Your task to perform on an android device: open app "Spotify: Music and Podcasts" (install if not already installed) Image 0: 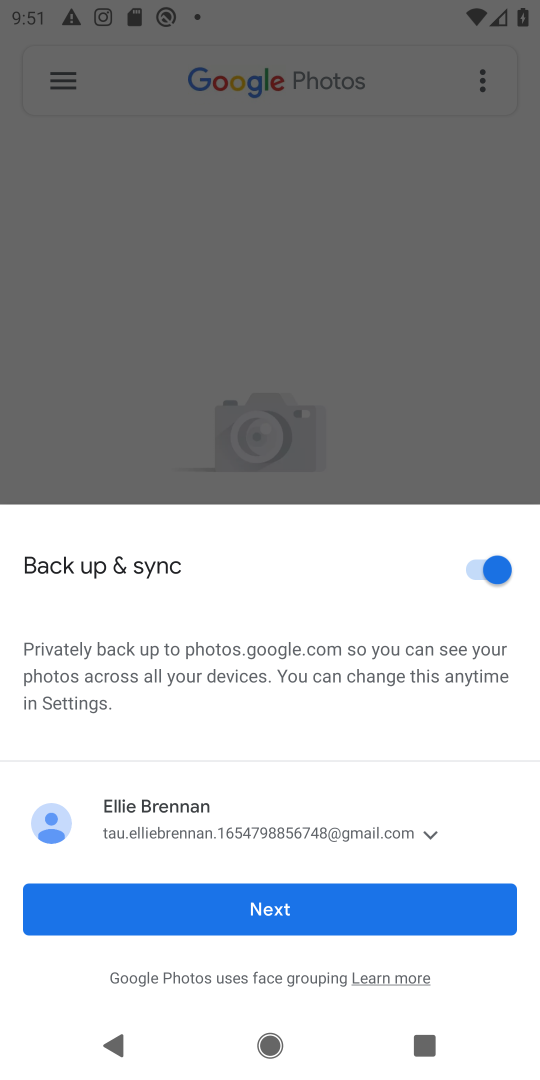
Step 0: press home button
Your task to perform on an android device: open app "Spotify: Music and Podcasts" (install if not already installed) Image 1: 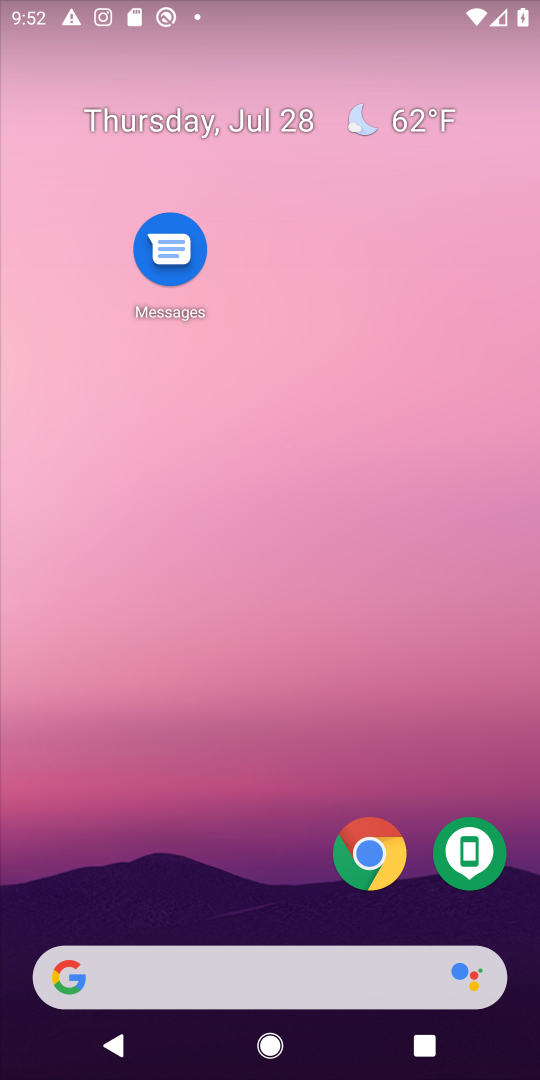
Step 1: drag from (187, 869) to (293, 279)
Your task to perform on an android device: open app "Spotify: Music and Podcasts" (install if not already installed) Image 2: 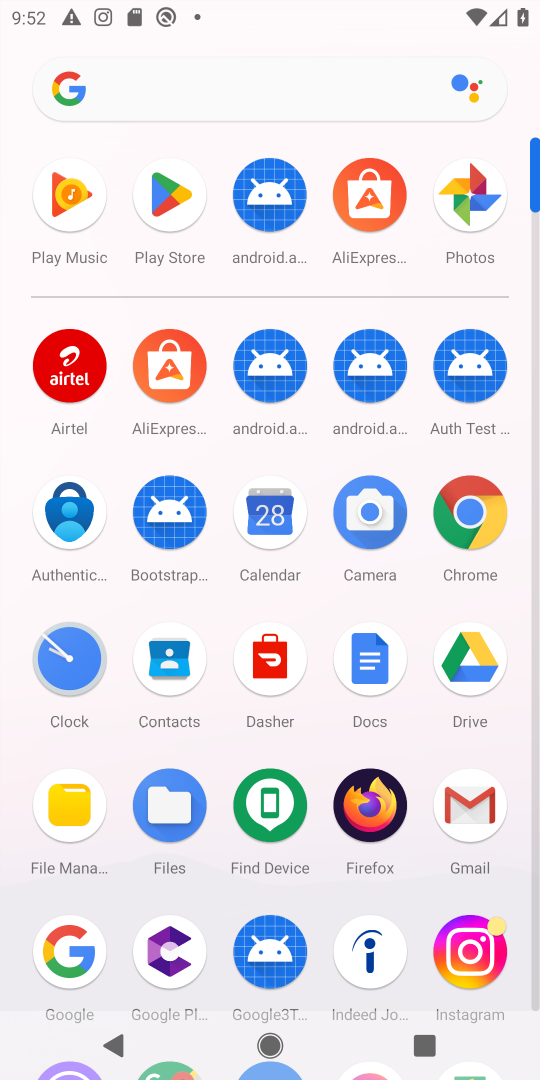
Step 2: click (156, 183)
Your task to perform on an android device: open app "Spotify: Music and Podcasts" (install if not already installed) Image 3: 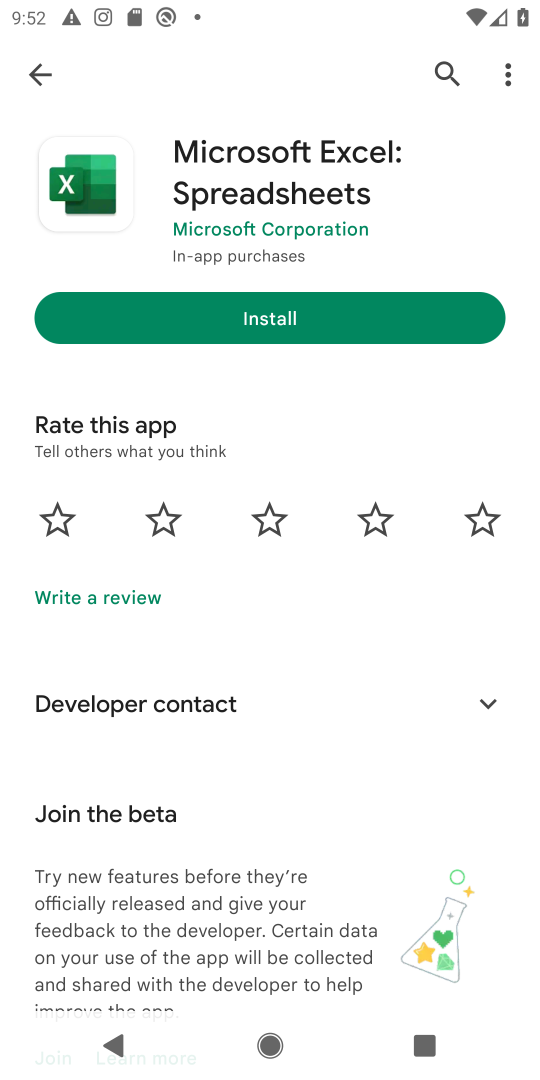
Step 3: click (43, 71)
Your task to perform on an android device: open app "Spotify: Music and Podcasts" (install if not already installed) Image 4: 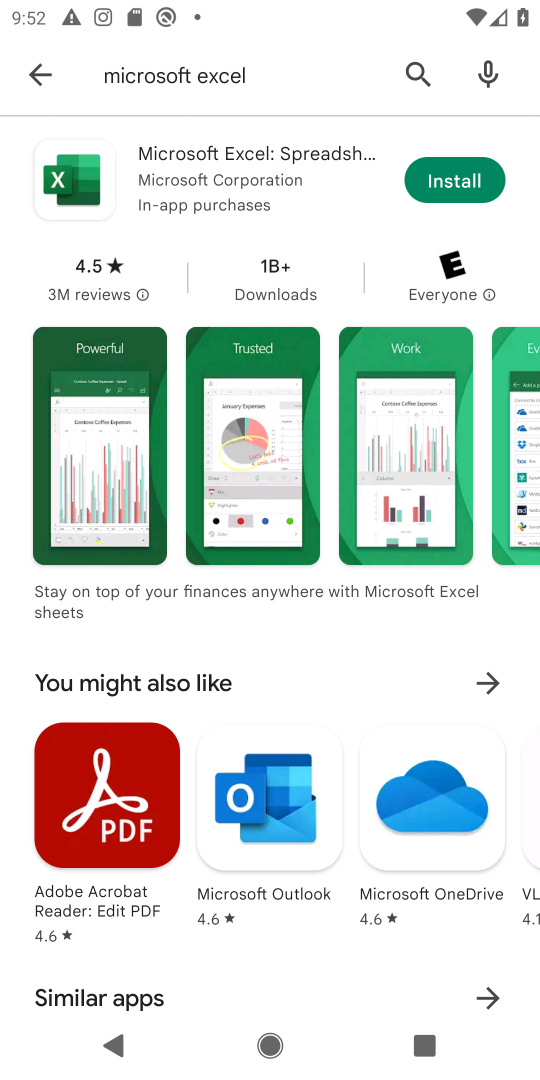
Step 4: click (43, 71)
Your task to perform on an android device: open app "Spotify: Music and Podcasts" (install if not already installed) Image 5: 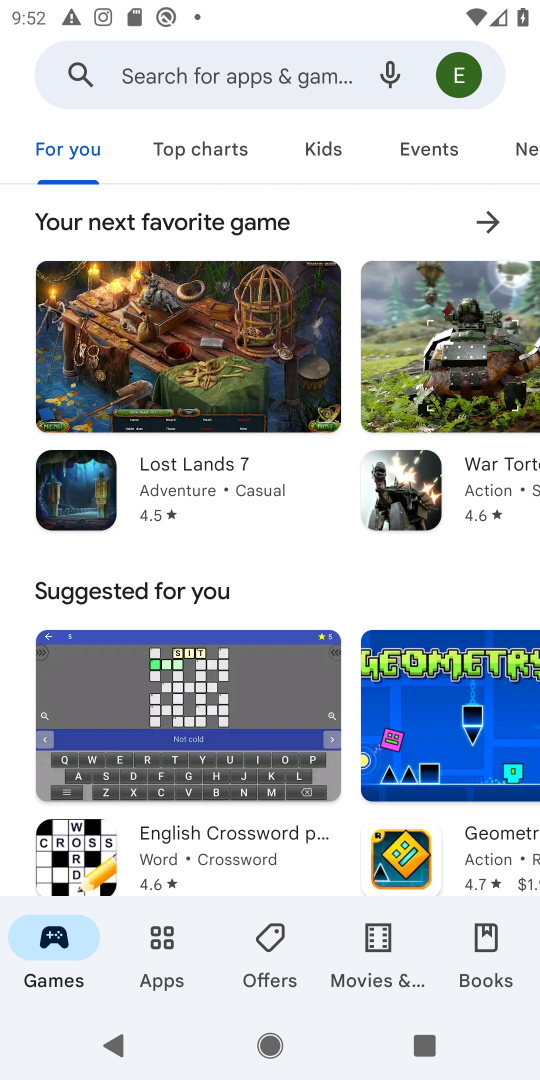
Step 5: click (123, 71)
Your task to perform on an android device: open app "Spotify: Music and Podcasts" (install if not already installed) Image 6: 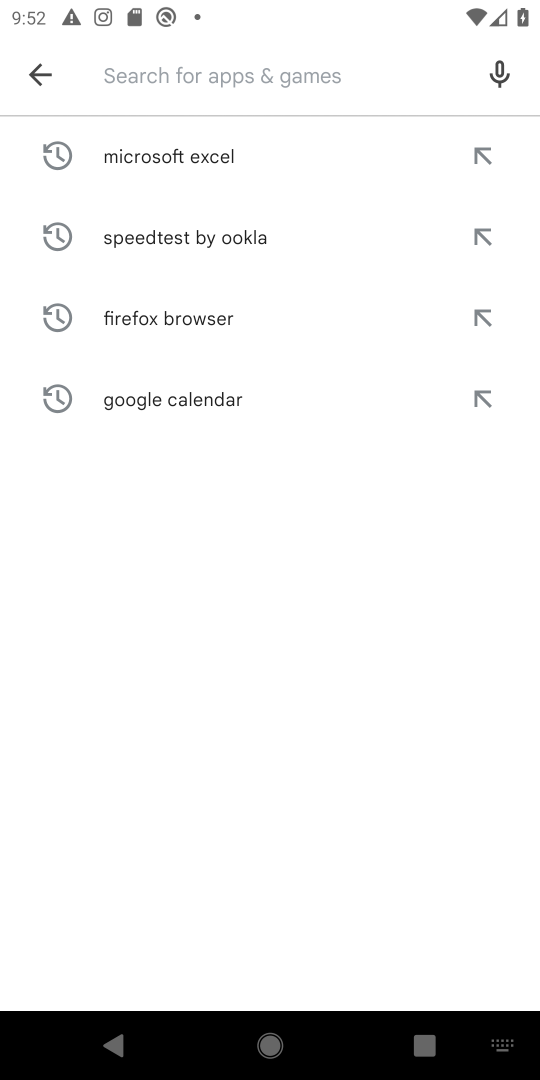
Step 6: type "Spotify"
Your task to perform on an android device: open app "Spotify: Music and Podcasts" (install if not already installed) Image 7: 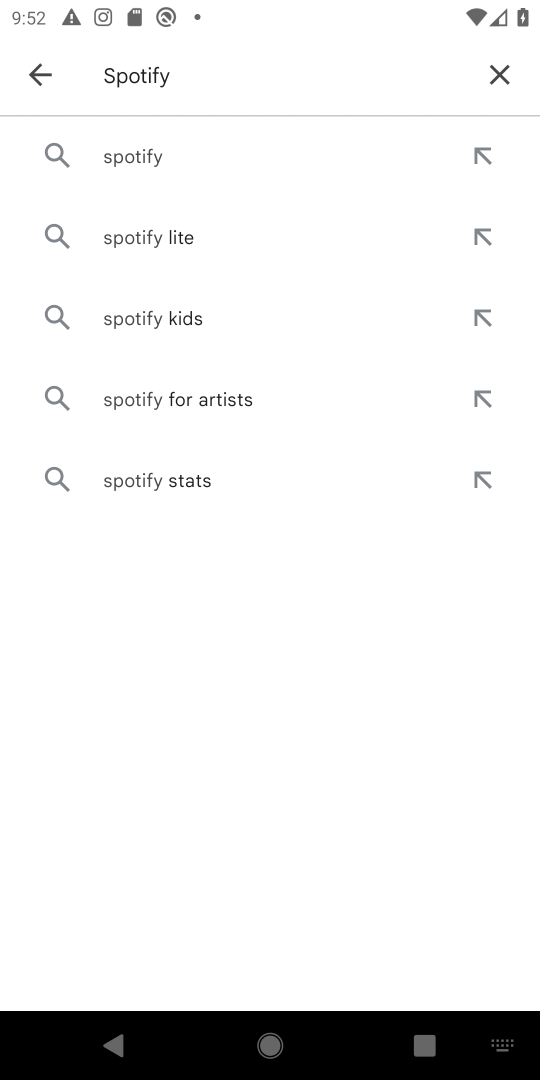
Step 7: click (125, 153)
Your task to perform on an android device: open app "Spotify: Music and Podcasts" (install if not already installed) Image 8: 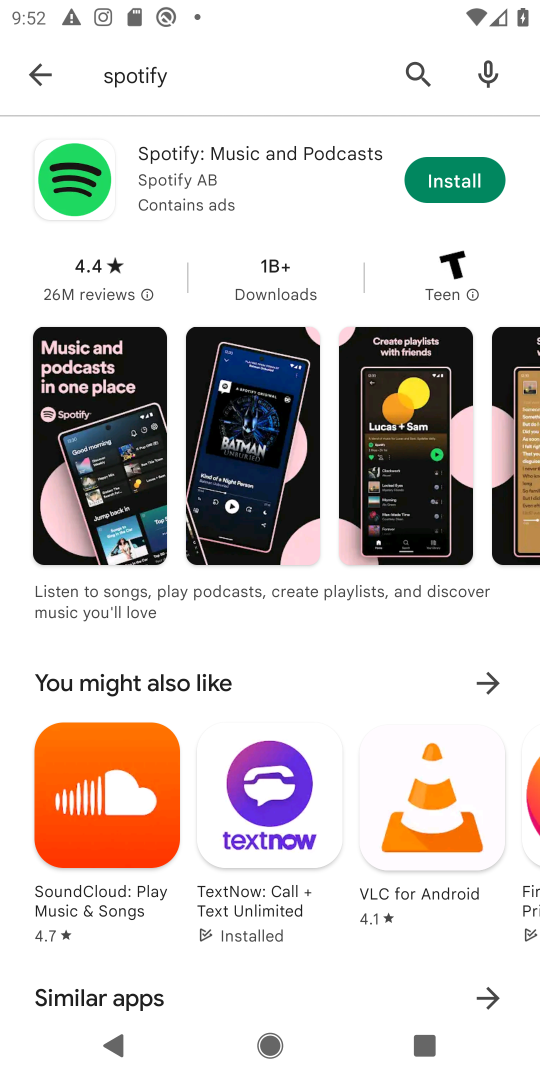
Step 8: click (436, 169)
Your task to perform on an android device: open app "Spotify: Music and Podcasts" (install if not already installed) Image 9: 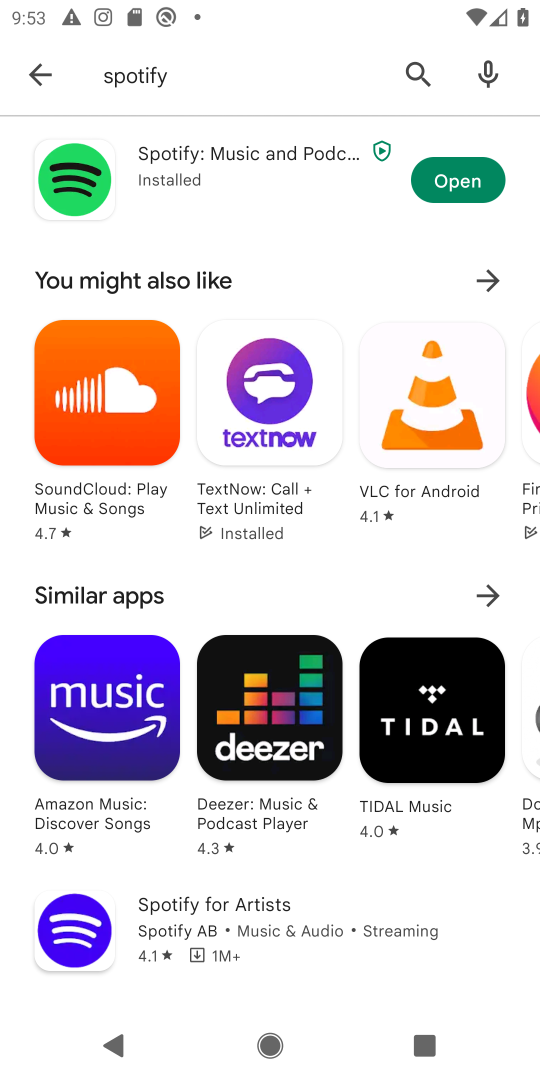
Step 9: click (447, 175)
Your task to perform on an android device: open app "Spotify: Music and Podcasts" (install if not already installed) Image 10: 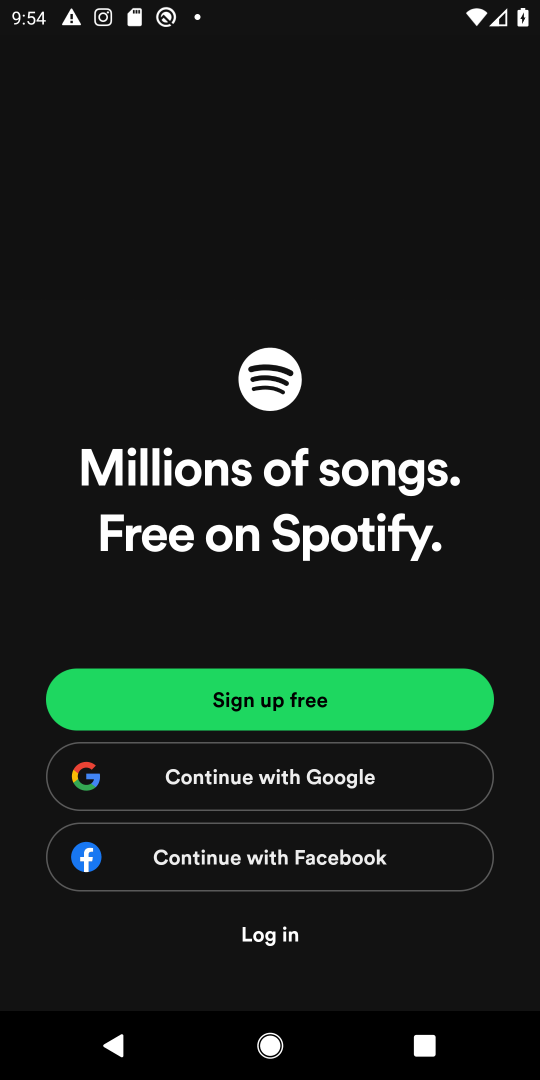
Step 10: task complete